Your task to perform on an android device: turn on javascript in the chrome app Image 0: 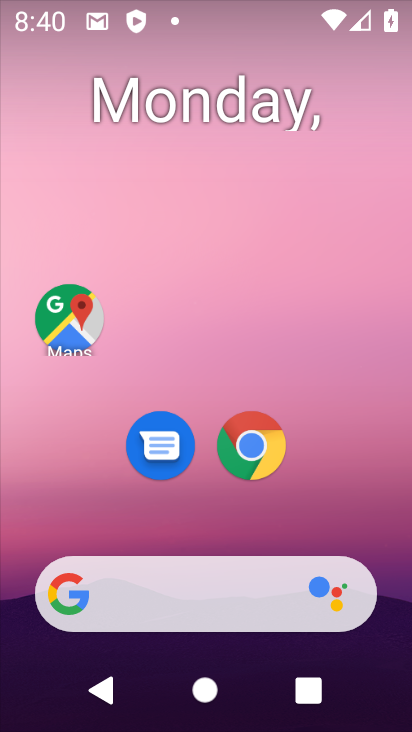
Step 0: click (231, 448)
Your task to perform on an android device: turn on javascript in the chrome app Image 1: 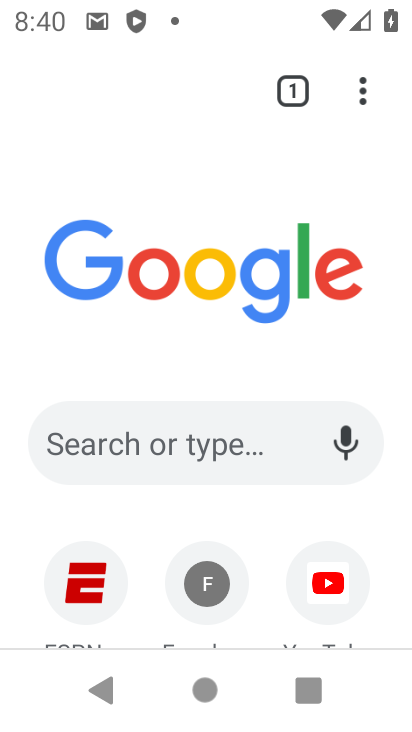
Step 1: click (372, 74)
Your task to perform on an android device: turn on javascript in the chrome app Image 2: 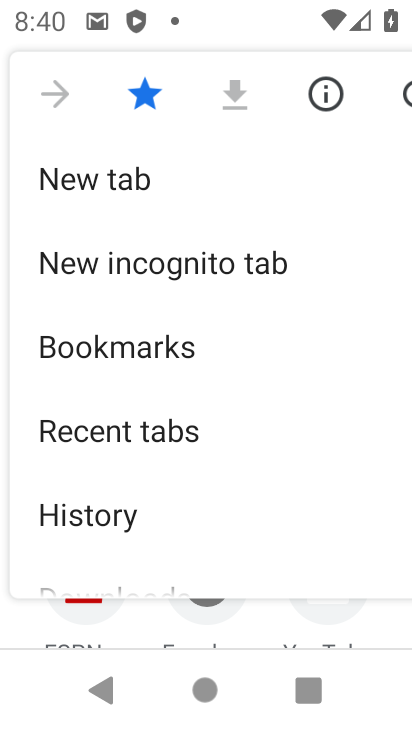
Step 2: drag from (257, 544) to (250, 103)
Your task to perform on an android device: turn on javascript in the chrome app Image 3: 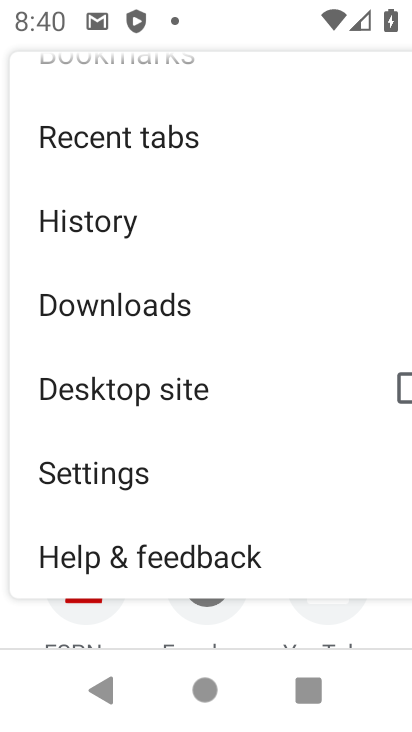
Step 3: click (110, 485)
Your task to perform on an android device: turn on javascript in the chrome app Image 4: 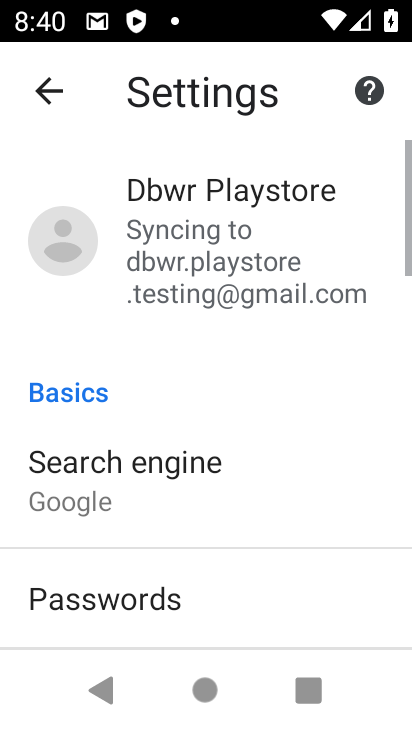
Step 4: drag from (278, 543) to (212, 31)
Your task to perform on an android device: turn on javascript in the chrome app Image 5: 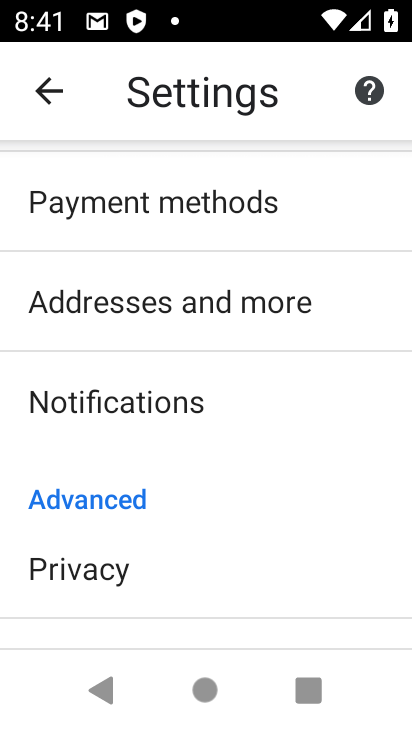
Step 5: drag from (178, 507) to (116, 47)
Your task to perform on an android device: turn on javascript in the chrome app Image 6: 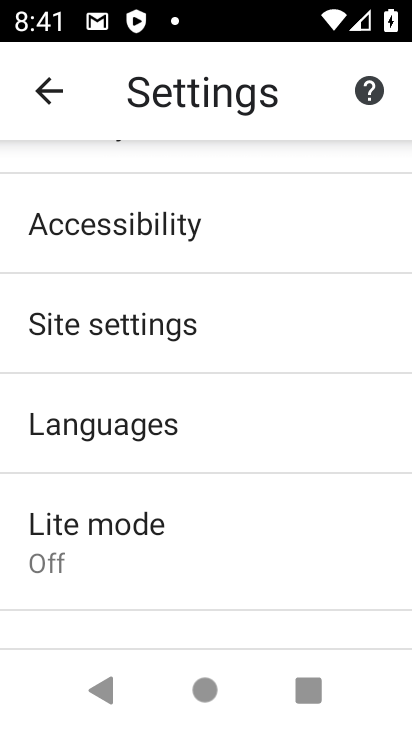
Step 6: click (103, 353)
Your task to perform on an android device: turn on javascript in the chrome app Image 7: 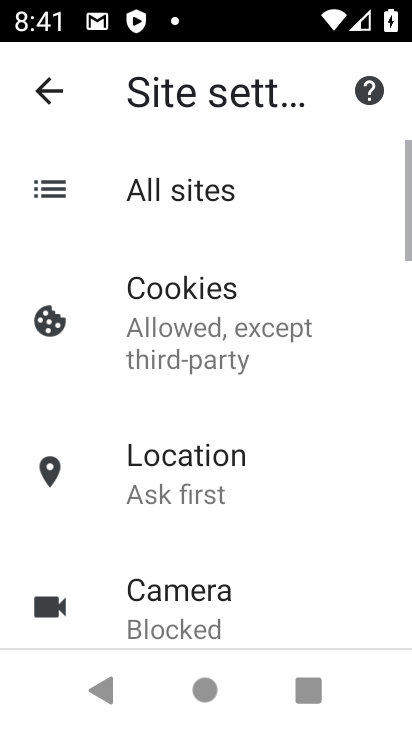
Step 7: drag from (208, 595) to (160, 161)
Your task to perform on an android device: turn on javascript in the chrome app Image 8: 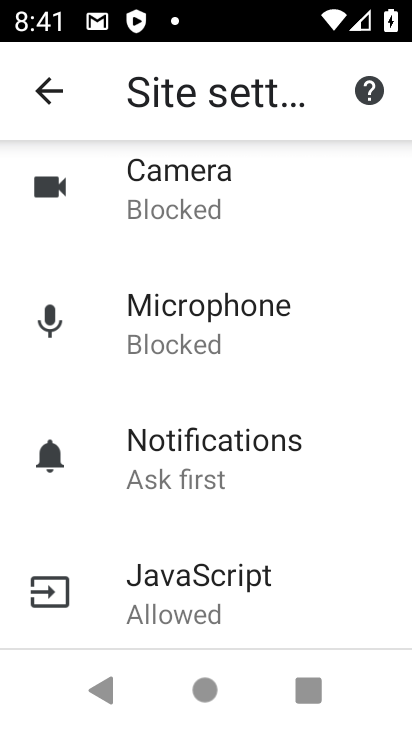
Step 8: click (221, 587)
Your task to perform on an android device: turn on javascript in the chrome app Image 9: 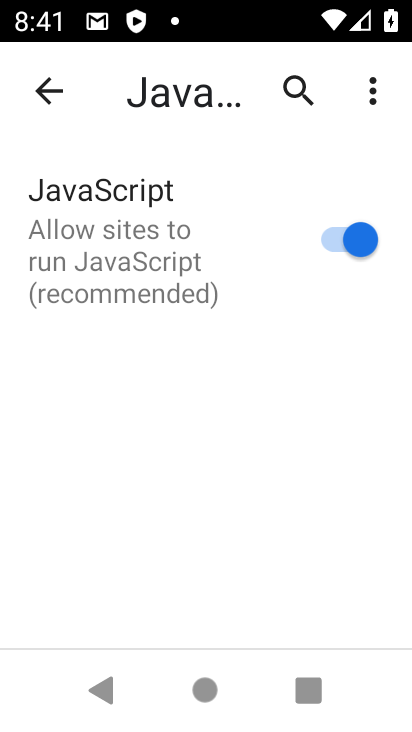
Step 9: task complete